Your task to perform on an android device: turn off airplane mode Image 0: 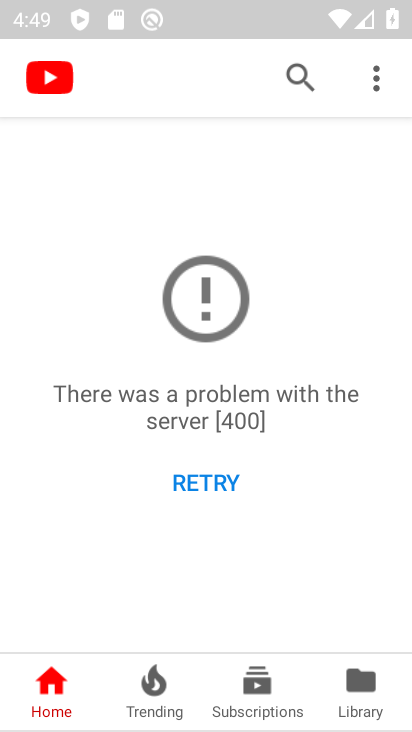
Step 0: press home button
Your task to perform on an android device: turn off airplane mode Image 1: 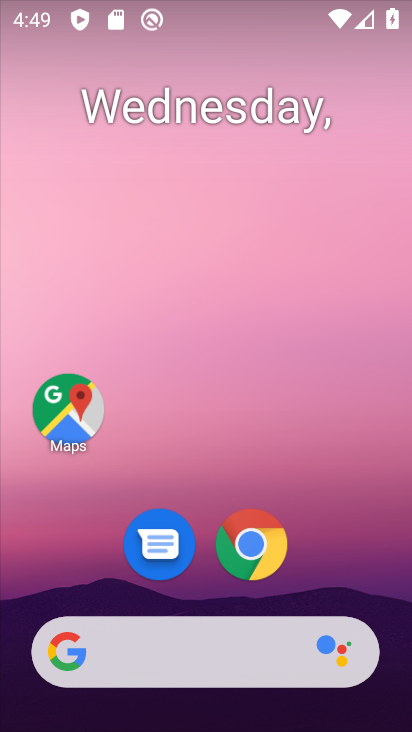
Step 1: drag from (206, 590) to (9, 51)
Your task to perform on an android device: turn off airplane mode Image 2: 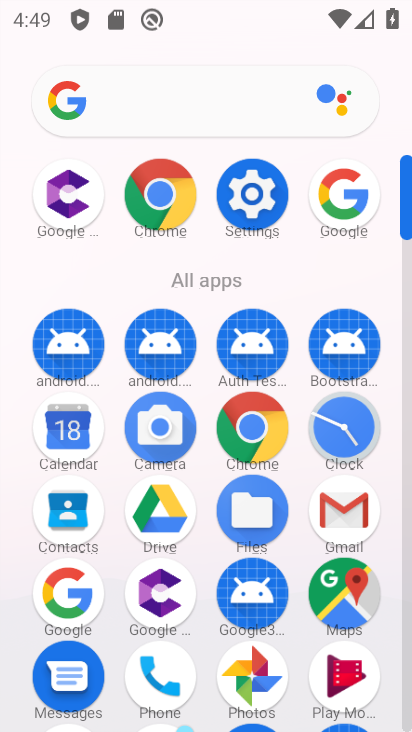
Step 2: click (254, 197)
Your task to perform on an android device: turn off airplane mode Image 3: 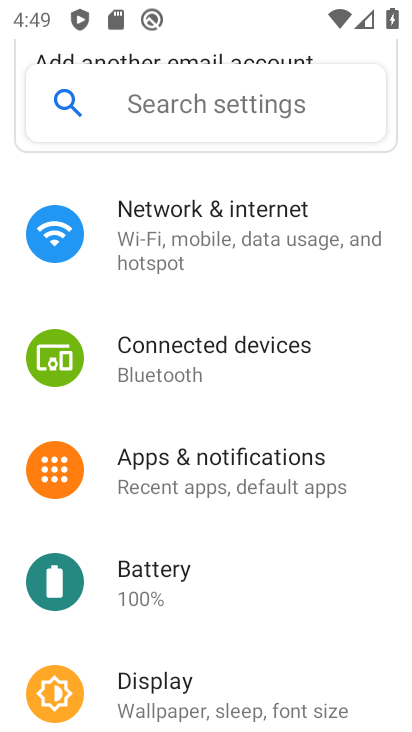
Step 3: click (205, 219)
Your task to perform on an android device: turn off airplane mode Image 4: 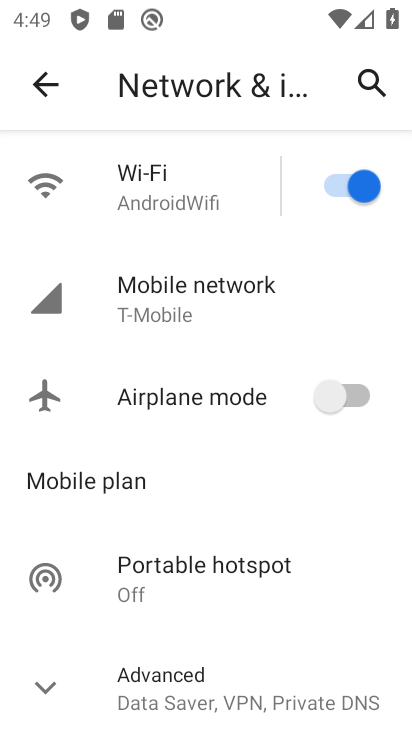
Step 4: task complete